Your task to perform on an android device: Open Reddit.com Image 0: 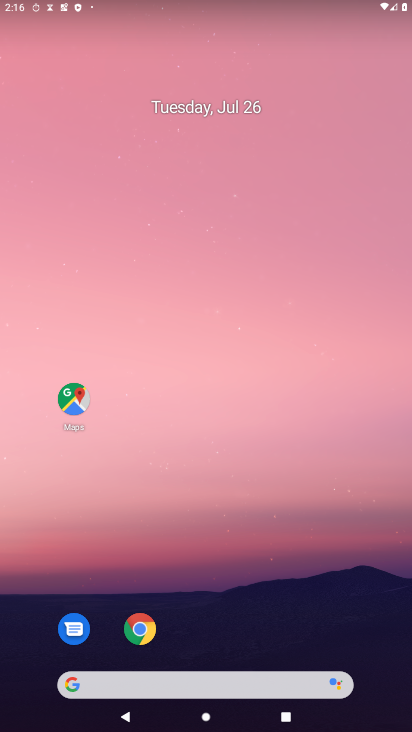
Step 0: drag from (175, 667) to (266, 6)
Your task to perform on an android device: Open Reddit.com Image 1: 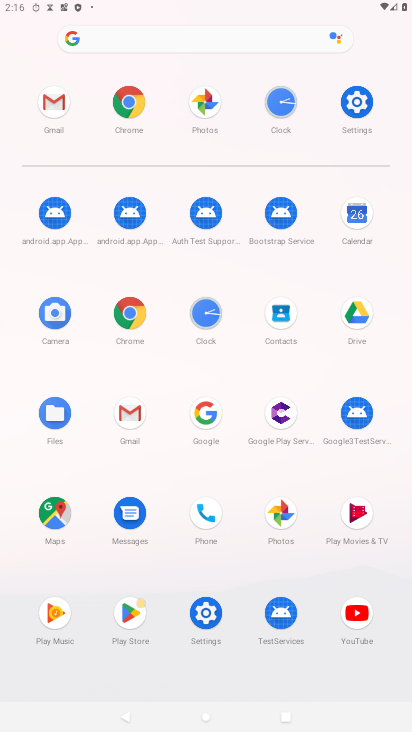
Step 1: click (129, 313)
Your task to perform on an android device: Open Reddit.com Image 2: 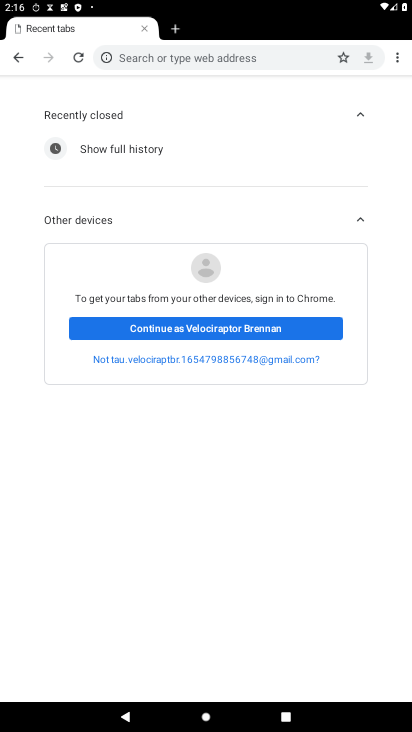
Step 2: click (288, 58)
Your task to perform on an android device: Open Reddit.com Image 3: 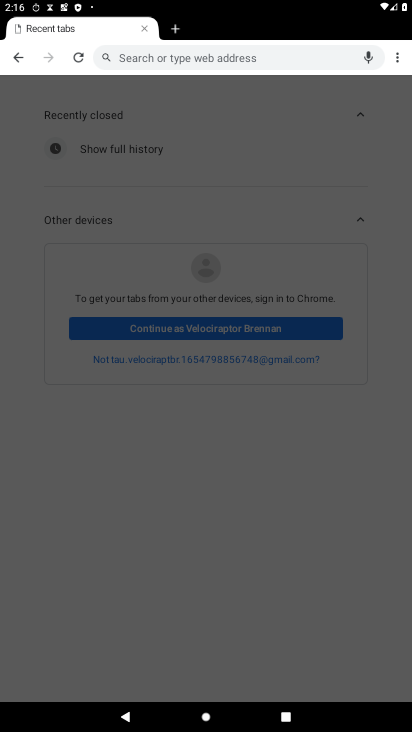
Step 3: type "reddit.com"
Your task to perform on an android device: Open Reddit.com Image 4: 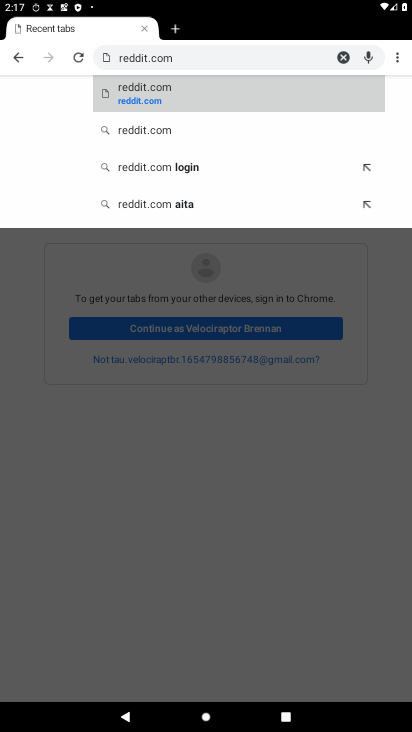
Step 4: click (151, 97)
Your task to perform on an android device: Open Reddit.com Image 5: 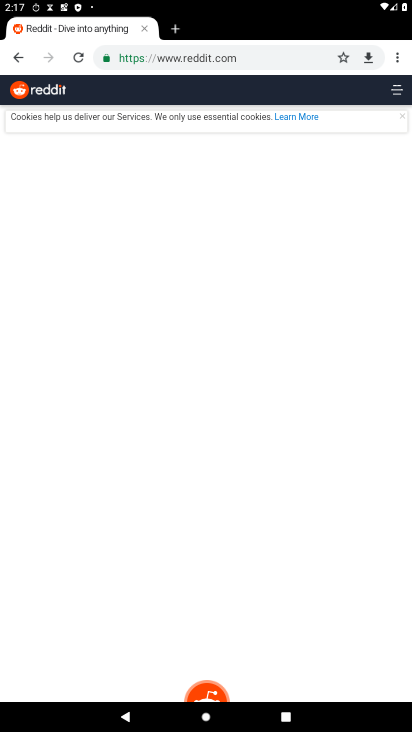
Step 5: task complete